Your task to perform on an android device: open app "Messenger Lite" (install if not already installed) Image 0: 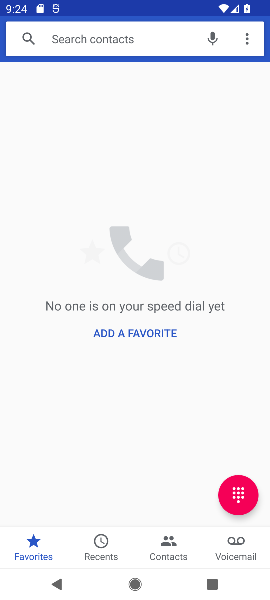
Step 0: press back button
Your task to perform on an android device: open app "Messenger Lite" (install if not already installed) Image 1: 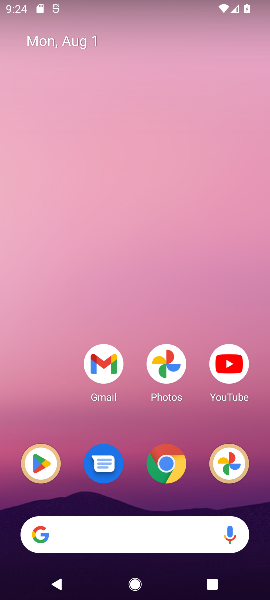
Step 1: press back button
Your task to perform on an android device: open app "Messenger Lite" (install if not already installed) Image 2: 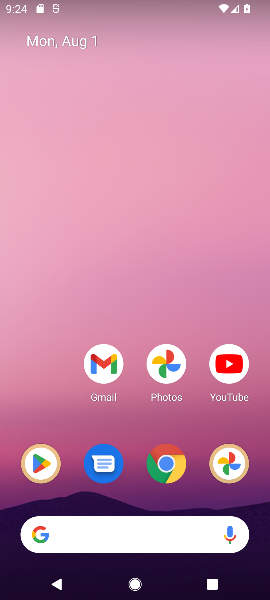
Step 2: click (35, 464)
Your task to perform on an android device: open app "Messenger Lite" (install if not already installed) Image 3: 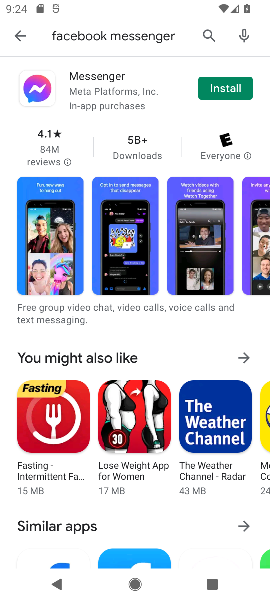
Step 3: click (215, 26)
Your task to perform on an android device: open app "Messenger Lite" (install if not already installed) Image 4: 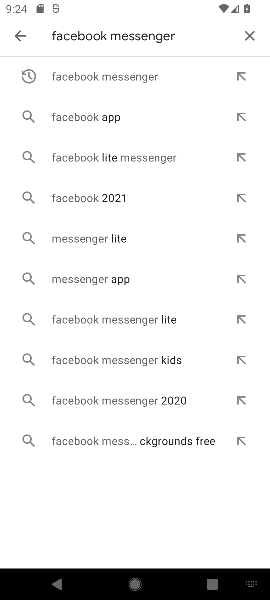
Step 4: click (87, 240)
Your task to perform on an android device: open app "Messenger Lite" (install if not already installed) Image 5: 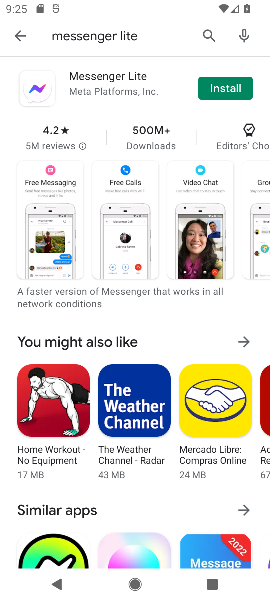
Step 5: click (219, 92)
Your task to perform on an android device: open app "Messenger Lite" (install if not already installed) Image 6: 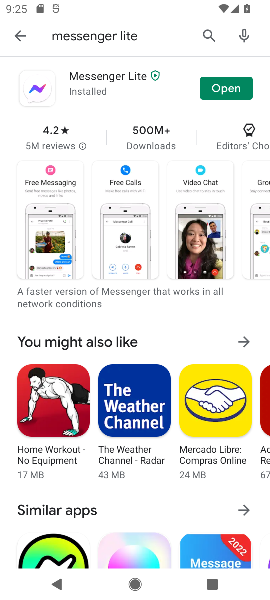
Step 6: click (209, 83)
Your task to perform on an android device: open app "Messenger Lite" (install if not already installed) Image 7: 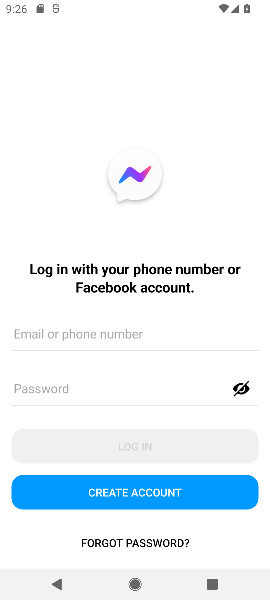
Step 7: task complete